Your task to perform on an android device: change notification settings in the gmail app Image 0: 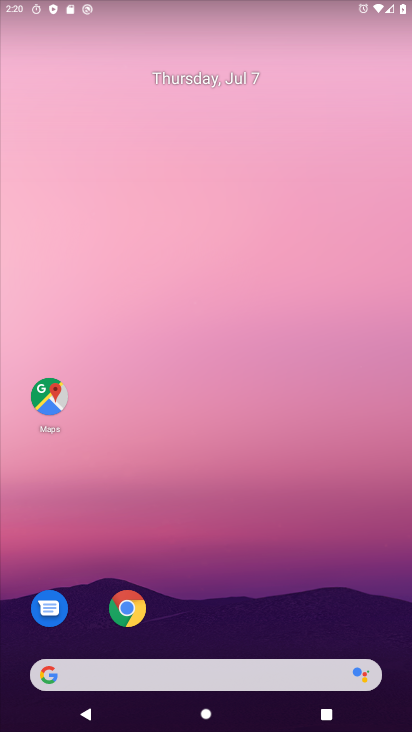
Step 0: drag from (264, 713) to (242, 130)
Your task to perform on an android device: change notification settings in the gmail app Image 1: 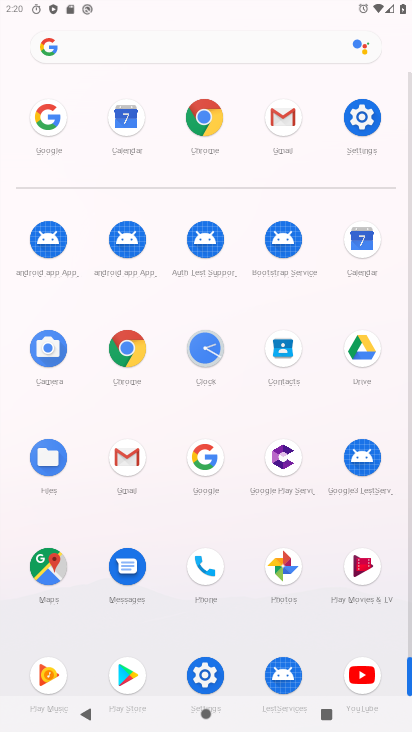
Step 1: click (131, 450)
Your task to perform on an android device: change notification settings in the gmail app Image 2: 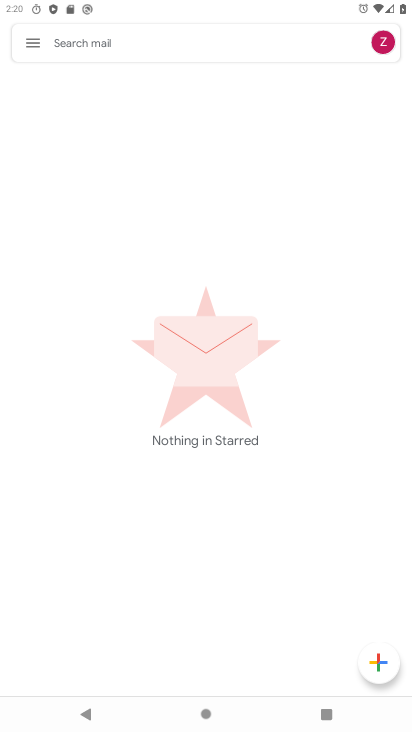
Step 2: click (33, 43)
Your task to perform on an android device: change notification settings in the gmail app Image 3: 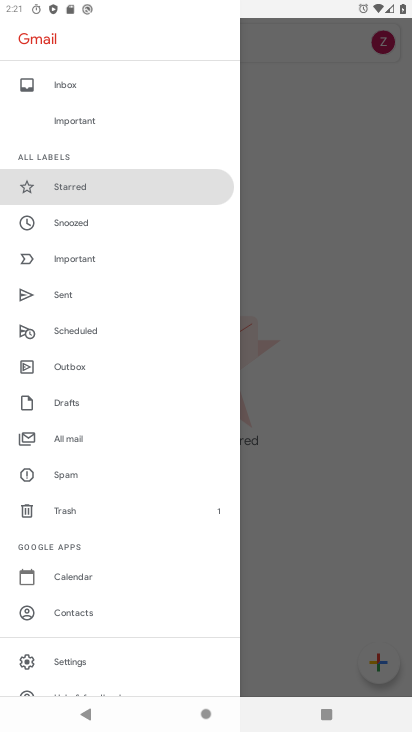
Step 3: click (74, 660)
Your task to perform on an android device: change notification settings in the gmail app Image 4: 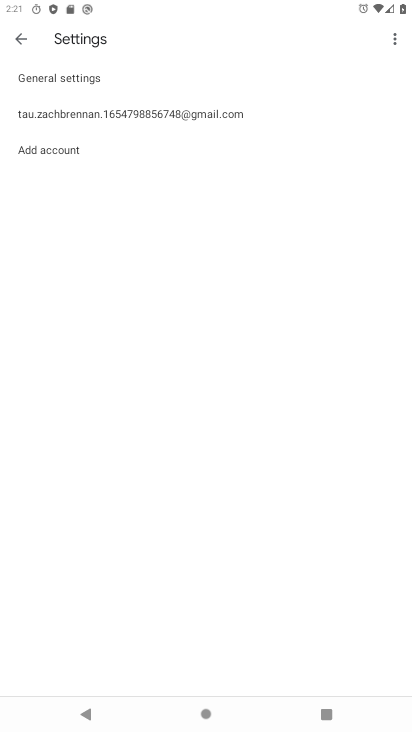
Step 4: click (85, 112)
Your task to perform on an android device: change notification settings in the gmail app Image 5: 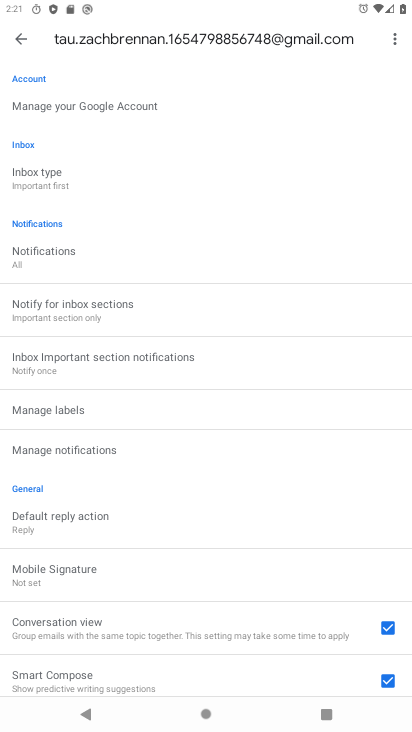
Step 5: click (50, 253)
Your task to perform on an android device: change notification settings in the gmail app Image 6: 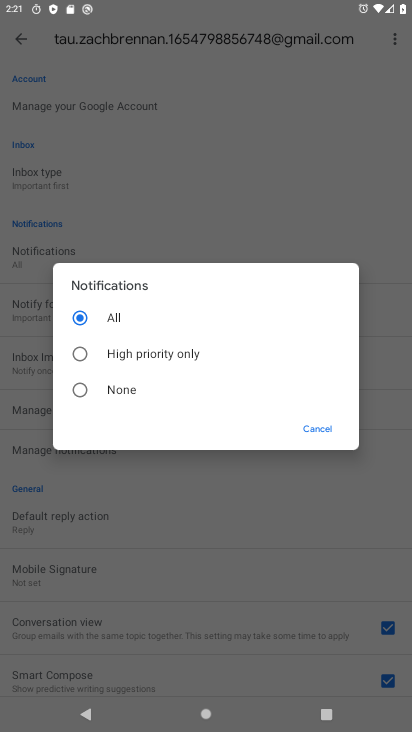
Step 6: click (83, 387)
Your task to perform on an android device: change notification settings in the gmail app Image 7: 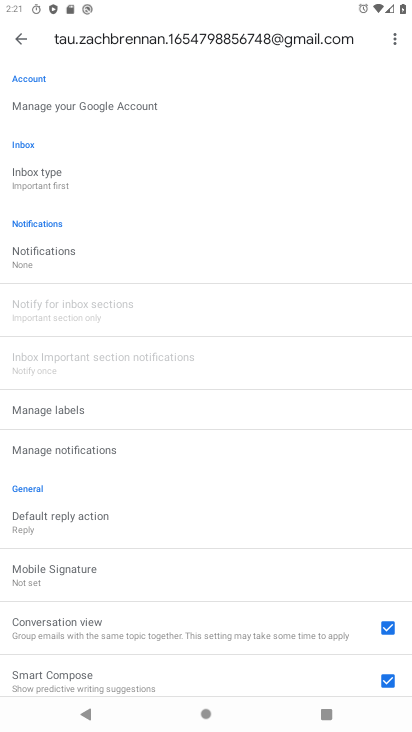
Step 7: task complete